Your task to perform on an android device: toggle data saver in the chrome app Image 0: 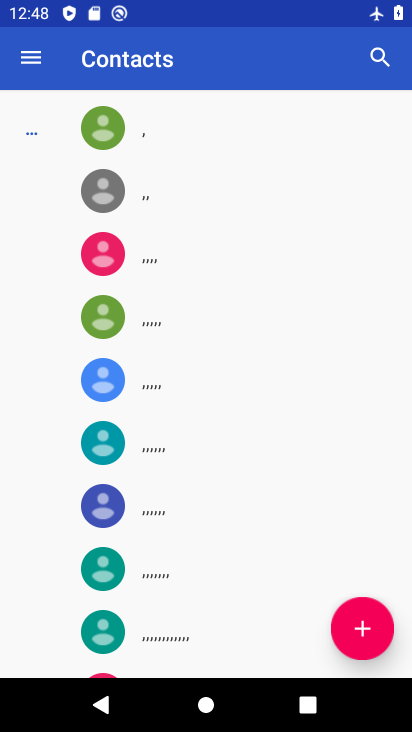
Step 0: press home button
Your task to perform on an android device: toggle data saver in the chrome app Image 1: 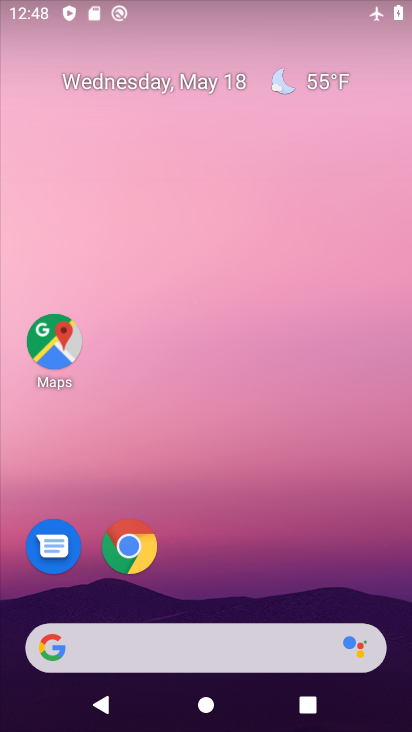
Step 1: drag from (342, 560) to (332, 159)
Your task to perform on an android device: toggle data saver in the chrome app Image 2: 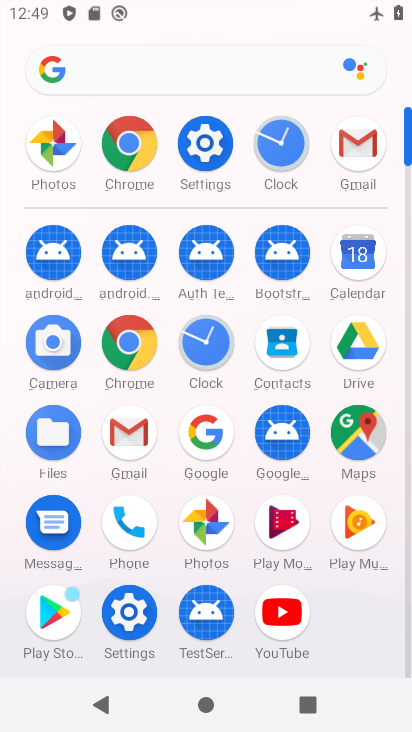
Step 2: click (136, 346)
Your task to perform on an android device: toggle data saver in the chrome app Image 3: 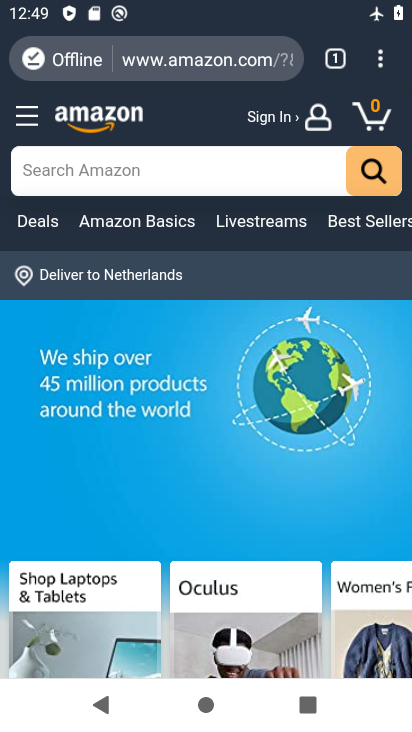
Step 3: drag from (382, 72) to (199, 582)
Your task to perform on an android device: toggle data saver in the chrome app Image 4: 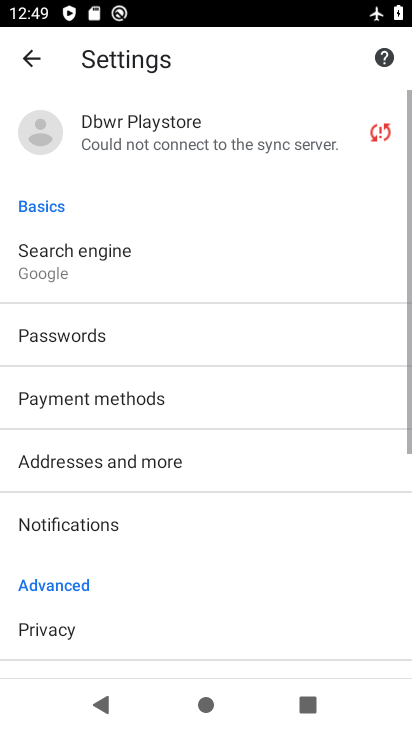
Step 4: drag from (194, 589) to (290, 277)
Your task to perform on an android device: toggle data saver in the chrome app Image 5: 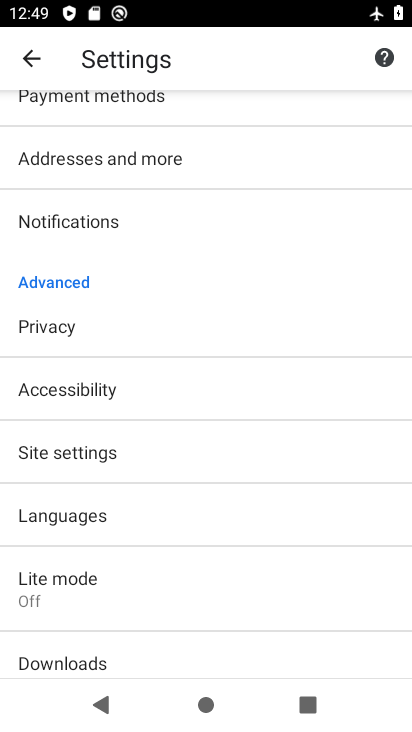
Step 5: click (85, 581)
Your task to perform on an android device: toggle data saver in the chrome app Image 6: 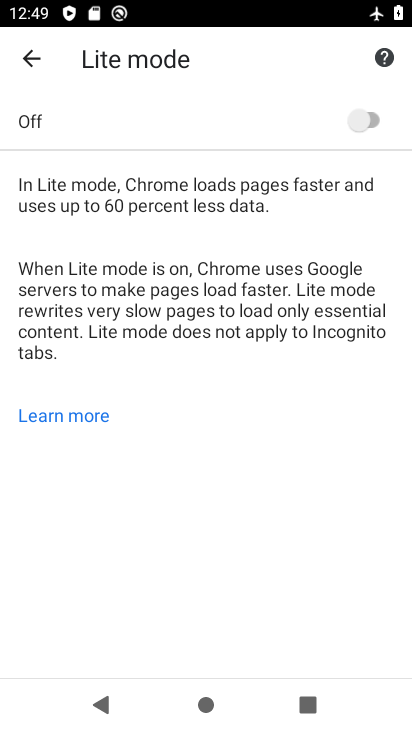
Step 6: click (374, 123)
Your task to perform on an android device: toggle data saver in the chrome app Image 7: 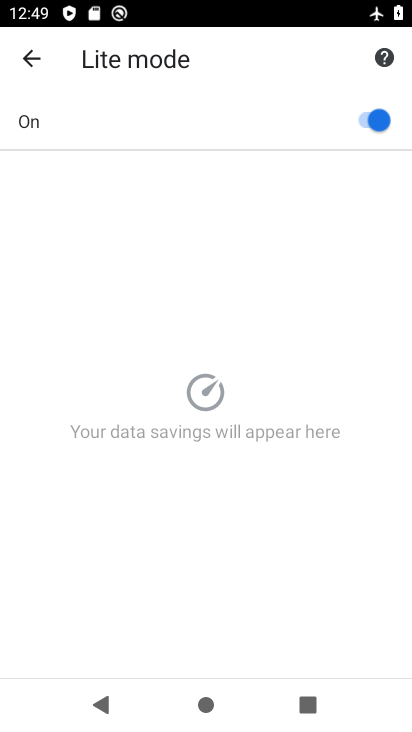
Step 7: task complete